Your task to perform on an android device: turn off sleep mode Image 0: 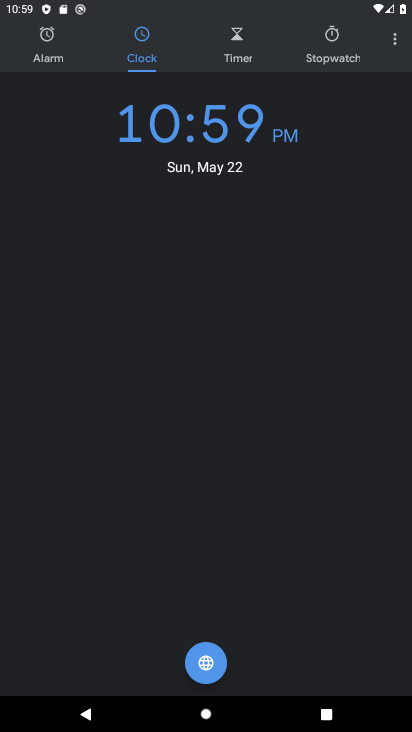
Step 0: press home button
Your task to perform on an android device: turn off sleep mode Image 1: 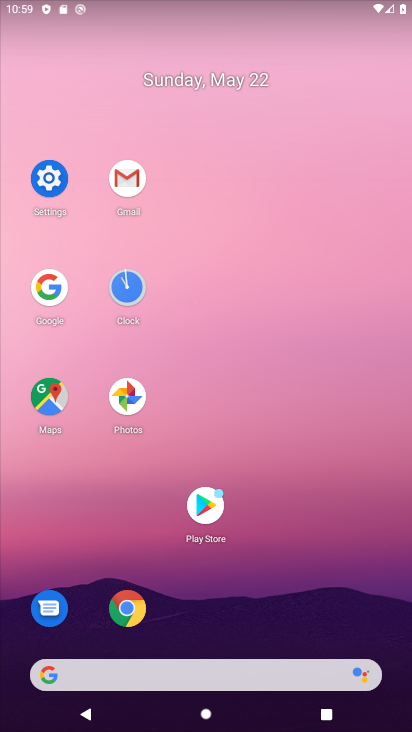
Step 1: click (59, 176)
Your task to perform on an android device: turn off sleep mode Image 2: 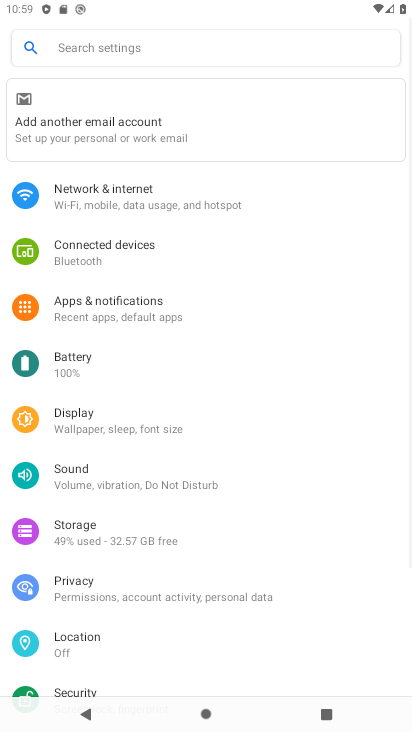
Step 2: click (192, 442)
Your task to perform on an android device: turn off sleep mode Image 3: 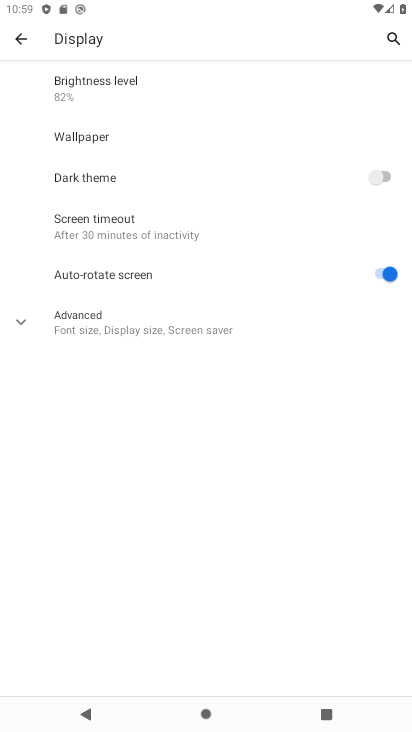
Step 3: click (211, 224)
Your task to perform on an android device: turn off sleep mode Image 4: 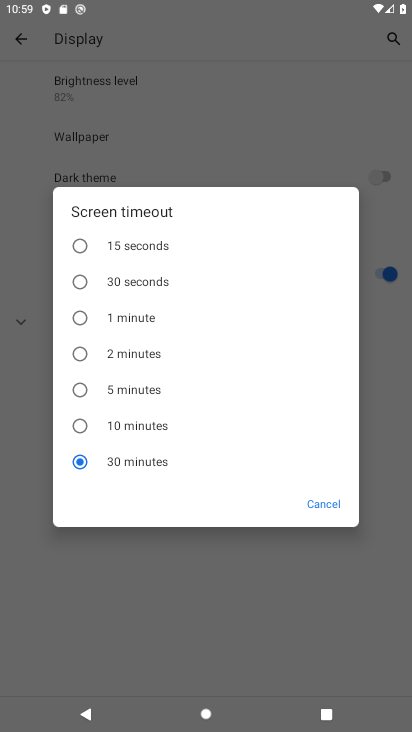
Step 4: task complete